Your task to perform on an android device: Open sound settings Image 0: 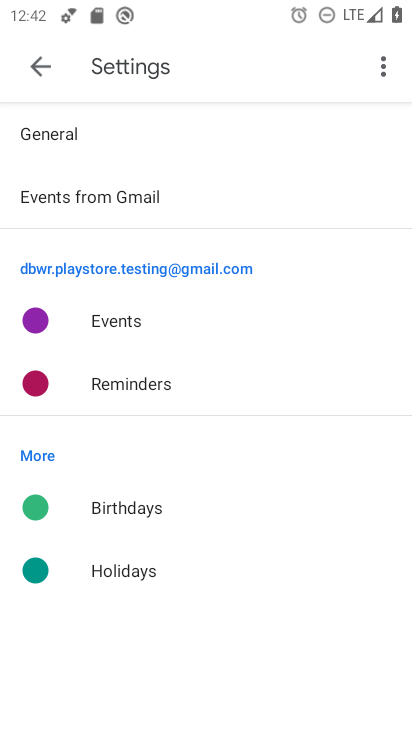
Step 0: press home button
Your task to perform on an android device: Open sound settings Image 1: 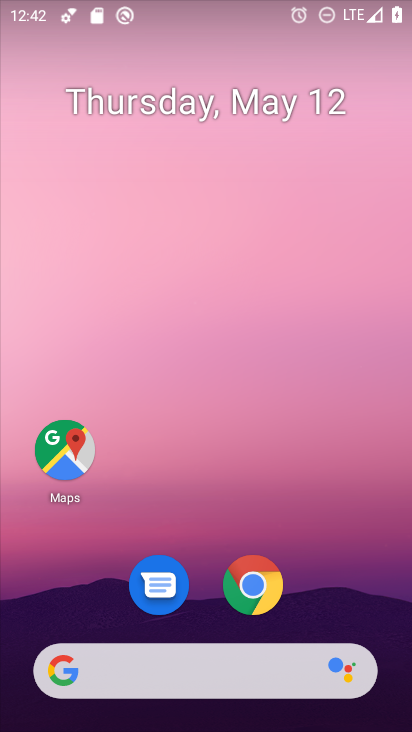
Step 1: drag from (236, 504) to (281, 3)
Your task to perform on an android device: Open sound settings Image 2: 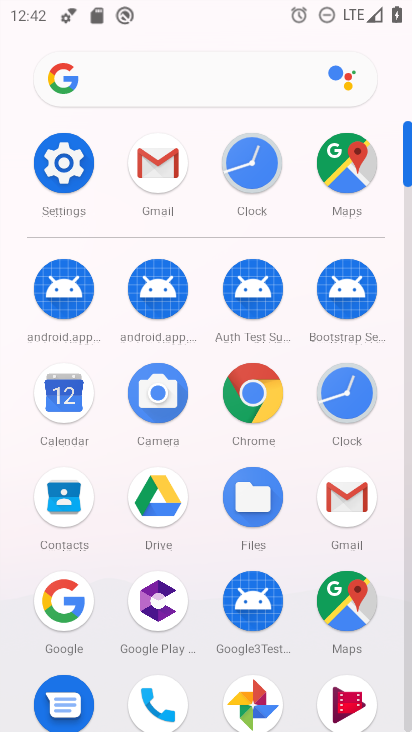
Step 2: click (66, 154)
Your task to perform on an android device: Open sound settings Image 3: 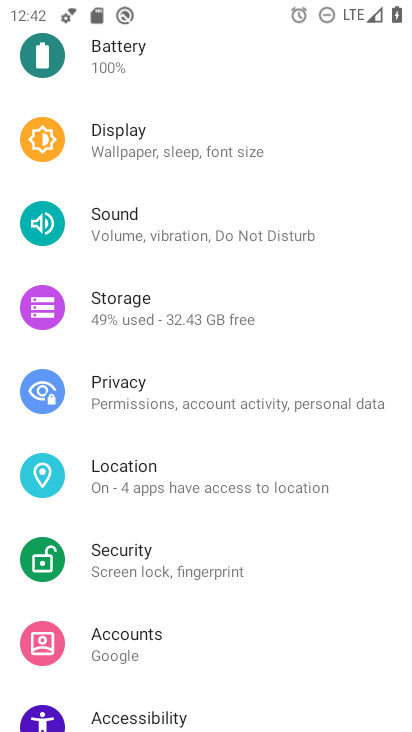
Step 3: click (235, 231)
Your task to perform on an android device: Open sound settings Image 4: 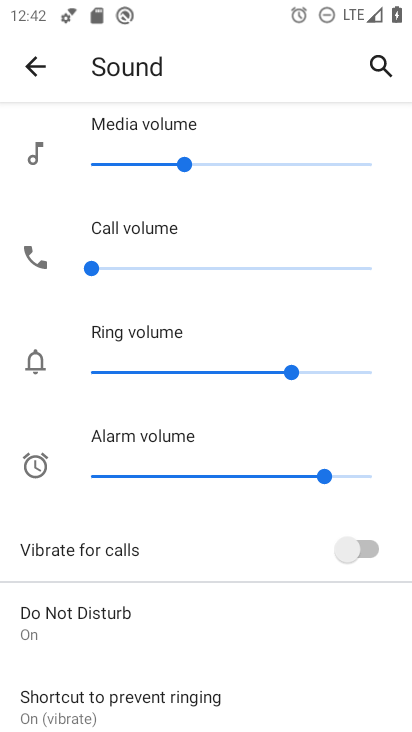
Step 4: task complete